Your task to perform on an android device: delete the emails in spam in the gmail app Image 0: 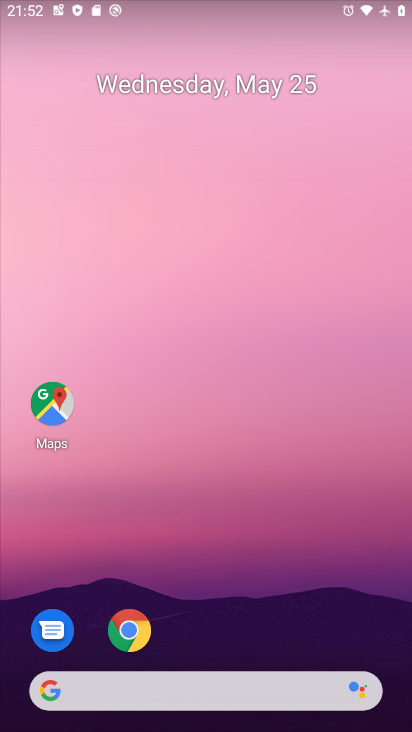
Step 0: drag from (221, 629) to (224, 221)
Your task to perform on an android device: delete the emails in spam in the gmail app Image 1: 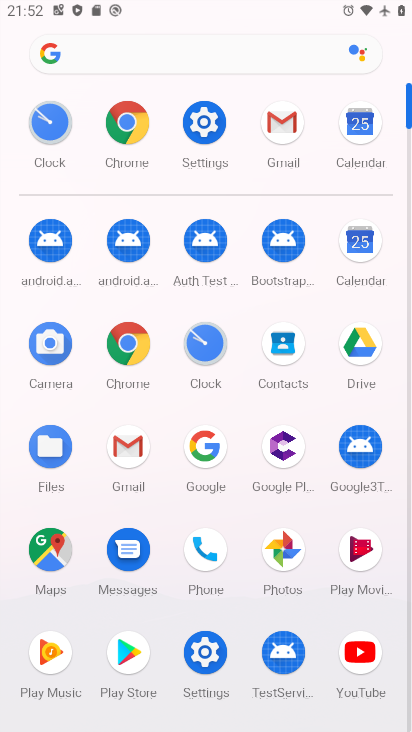
Step 1: click (287, 126)
Your task to perform on an android device: delete the emails in spam in the gmail app Image 2: 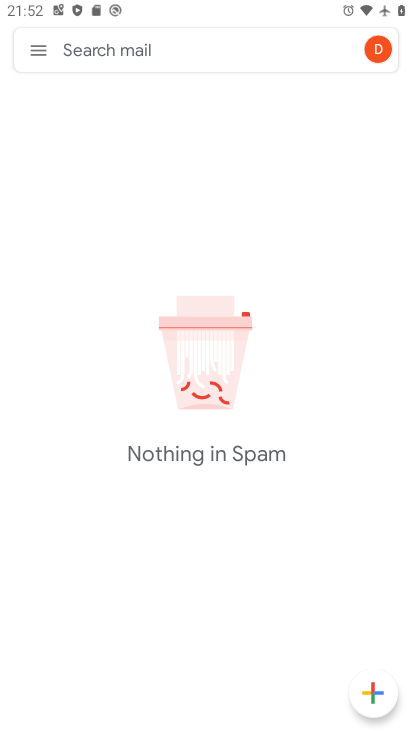
Step 2: click (41, 42)
Your task to perform on an android device: delete the emails in spam in the gmail app Image 3: 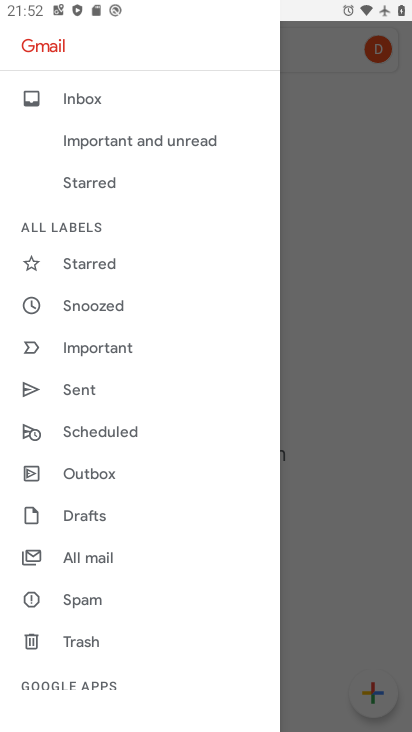
Step 3: click (130, 553)
Your task to perform on an android device: delete the emails in spam in the gmail app Image 4: 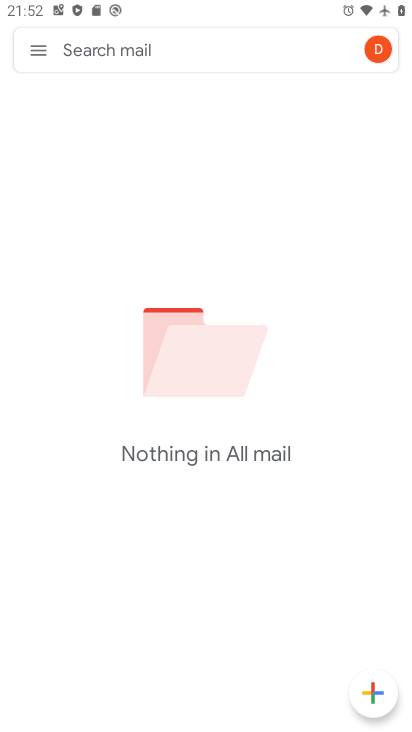
Step 4: task complete